Your task to perform on an android device: Is it going to rain this weekend? Image 0: 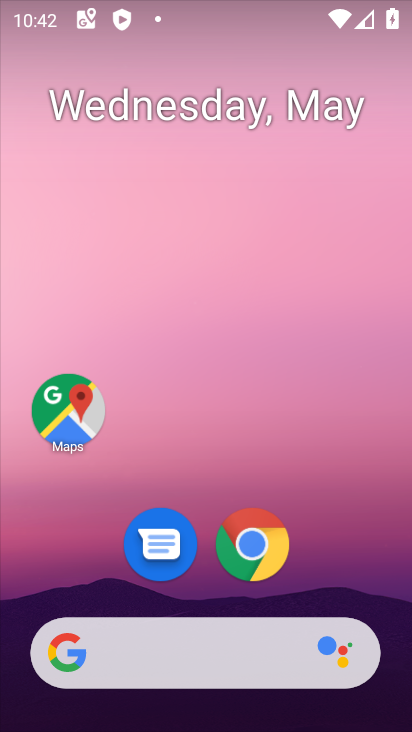
Step 0: drag from (291, 615) to (335, 229)
Your task to perform on an android device: Is it going to rain this weekend? Image 1: 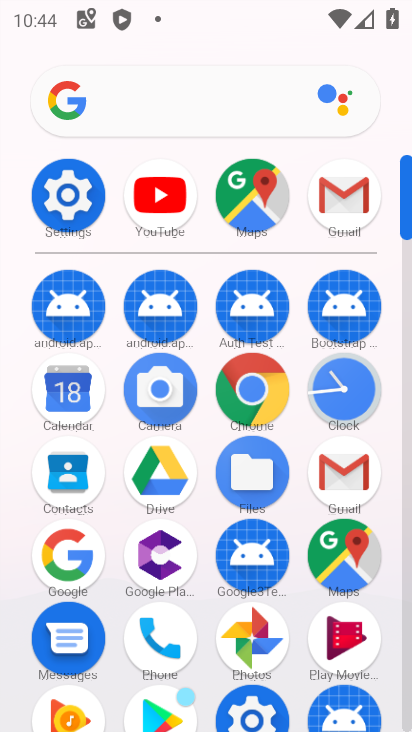
Step 1: click (72, 393)
Your task to perform on an android device: Is it going to rain this weekend? Image 2: 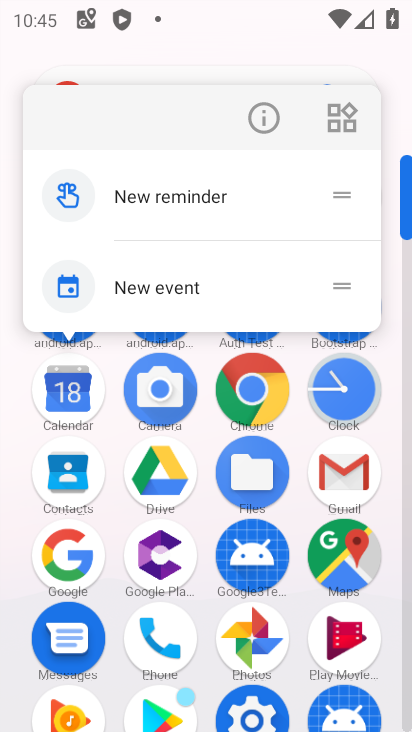
Step 2: press home button
Your task to perform on an android device: Is it going to rain this weekend? Image 3: 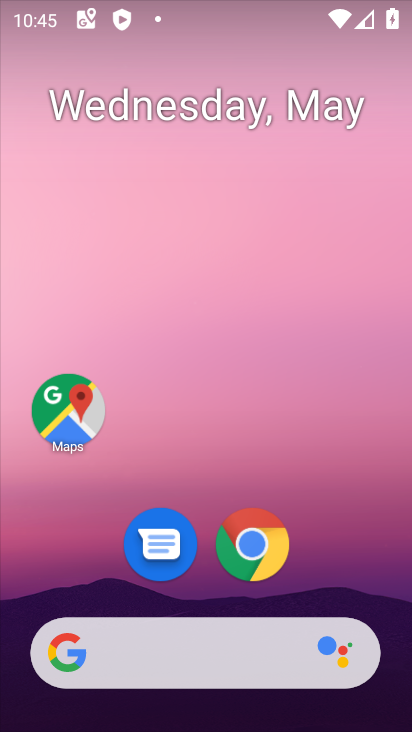
Step 3: drag from (184, 653) to (229, 174)
Your task to perform on an android device: Is it going to rain this weekend? Image 4: 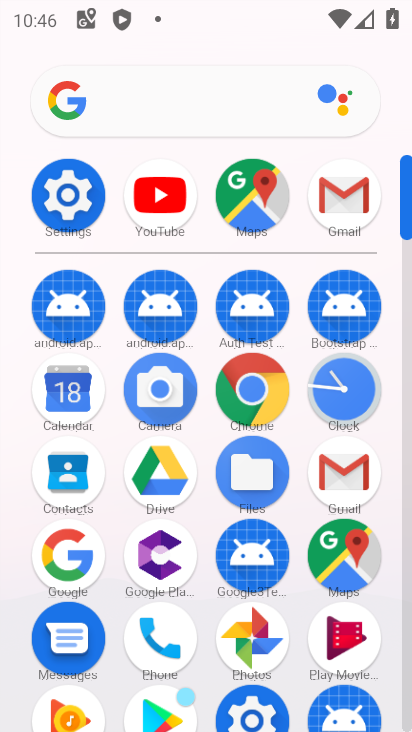
Step 4: press home button
Your task to perform on an android device: Is it going to rain this weekend? Image 5: 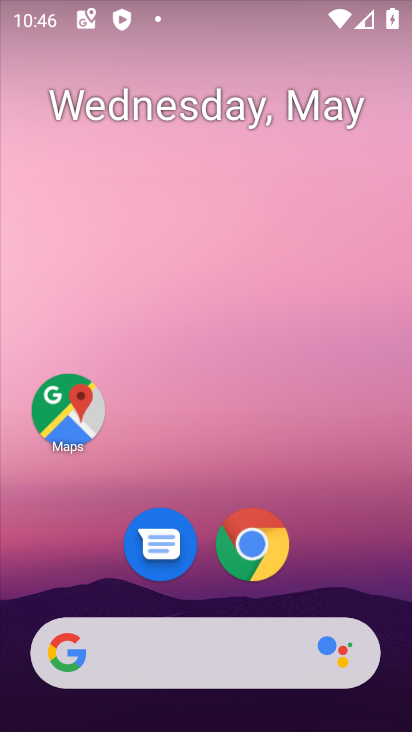
Step 5: drag from (128, 349) to (408, 399)
Your task to perform on an android device: Is it going to rain this weekend? Image 6: 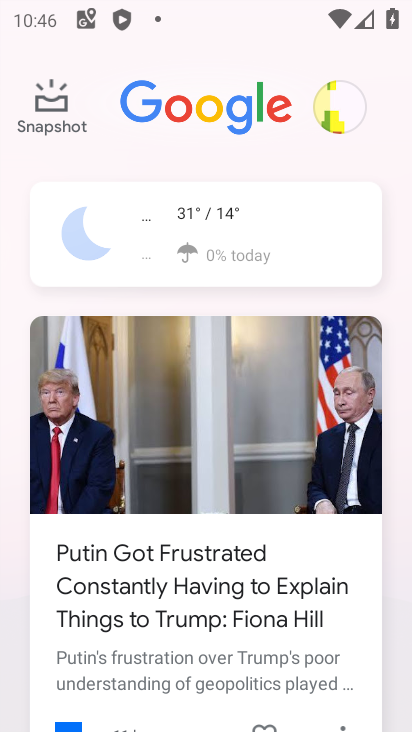
Step 6: click (131, 219)
Your task to perform on an android device: Is it going to rain this weekend? Image 7: 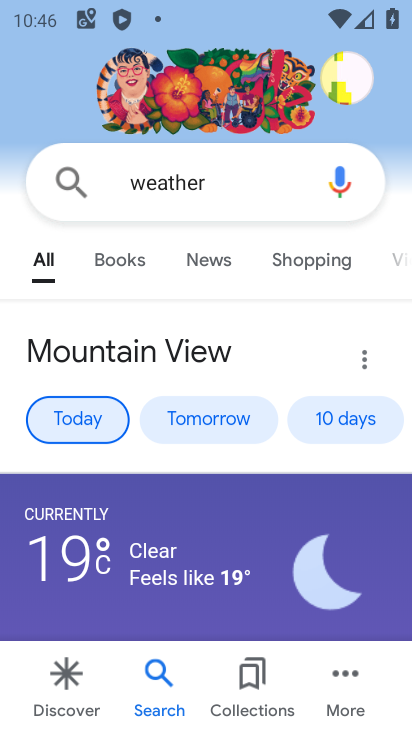
Step 7: click (360, 417)
Your task to perform on an android device: Is it going to rain this weekend? Image 8: 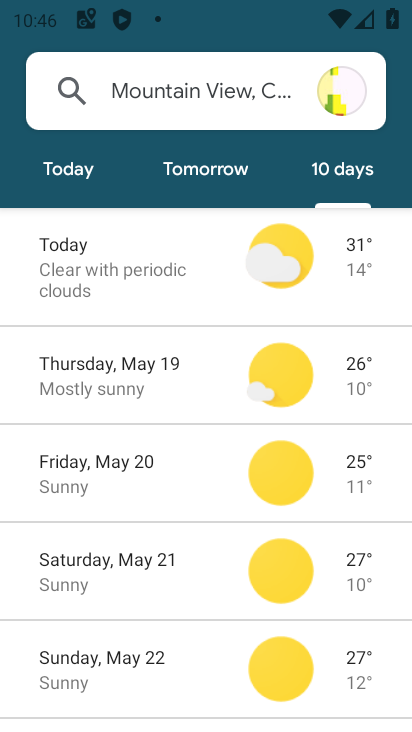
Step 8: task complete